Your task to perform on an android device: Go to notification settings Image 0: 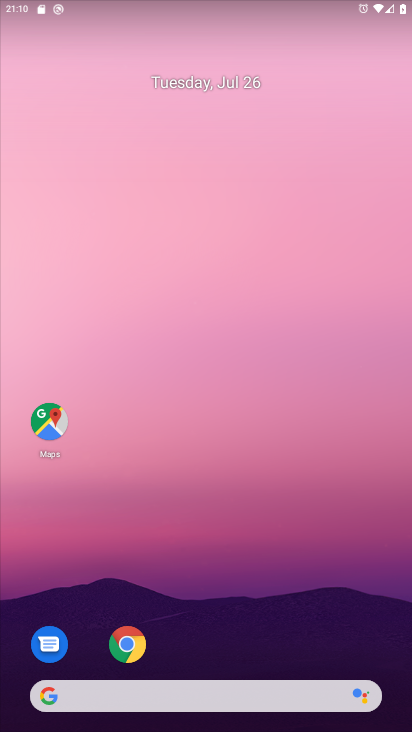
Step 0: drag from (271, 654) to (270, 157)
Your task to perform on an android device: Go to notification settings Image 1: 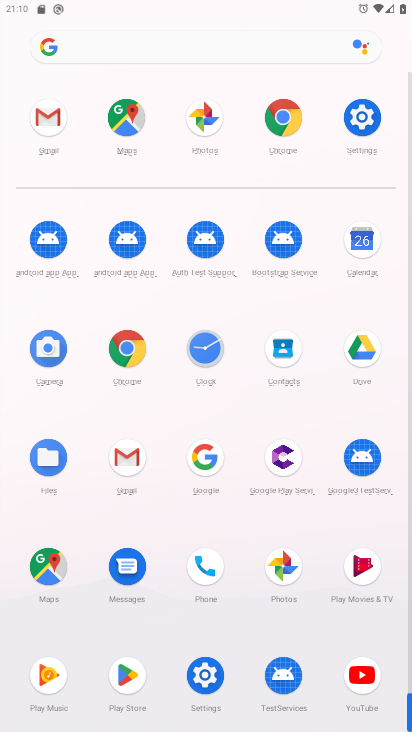
Step 1: click (365, 104)
Your task to perform on an android device: Go to notification settings Image 2: 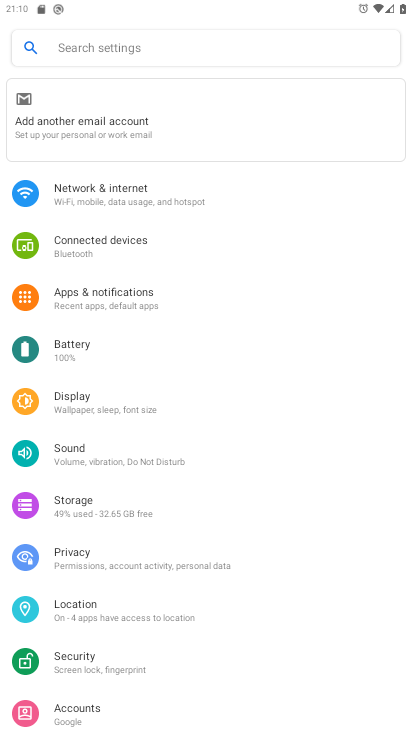
Step 2: click (113, 296)
Your task to perform on an android device: Go to notification settings Image 3: 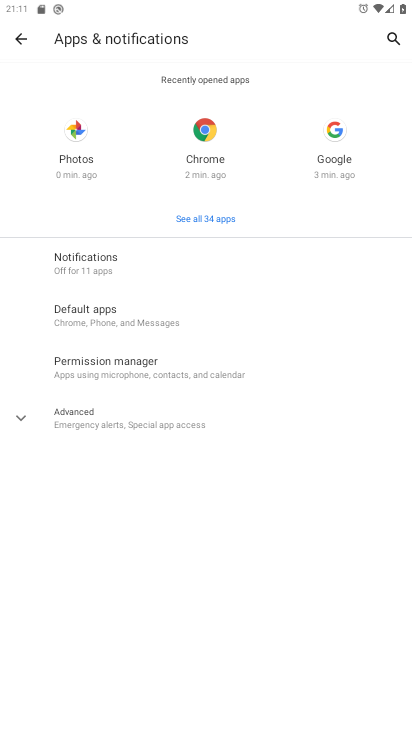
Step 3: click (83, 259)
Your task to perform on an android device: Go to notification settings Image 4: 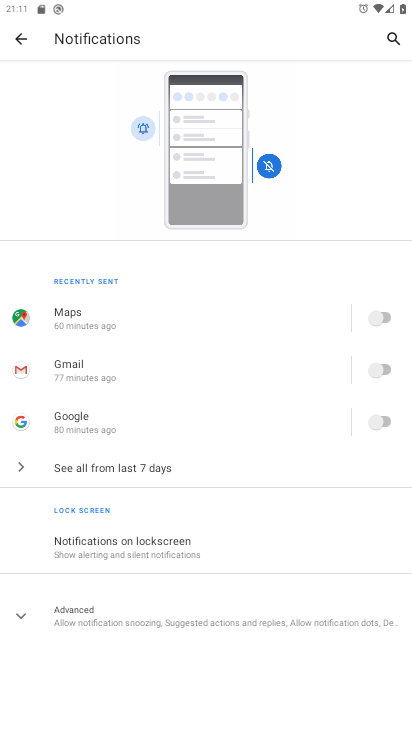
Step 4: task complete